Your task to perform on an android device: make emails show in primary in the gmail app Image 0: 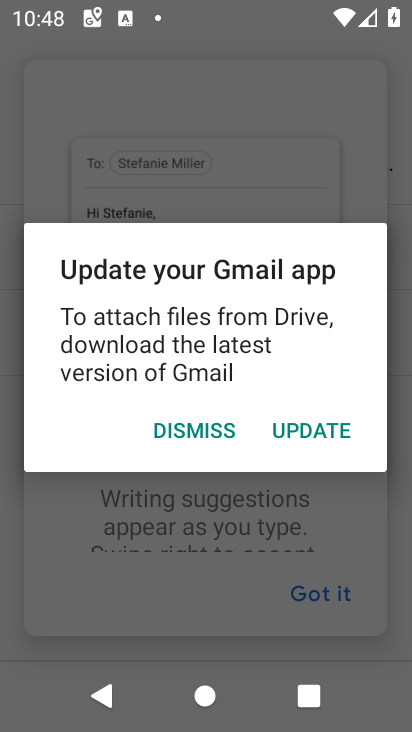
Step 0: press home button
Your task to perform on an android device: make emails show in primary in the gmail app Image 1: 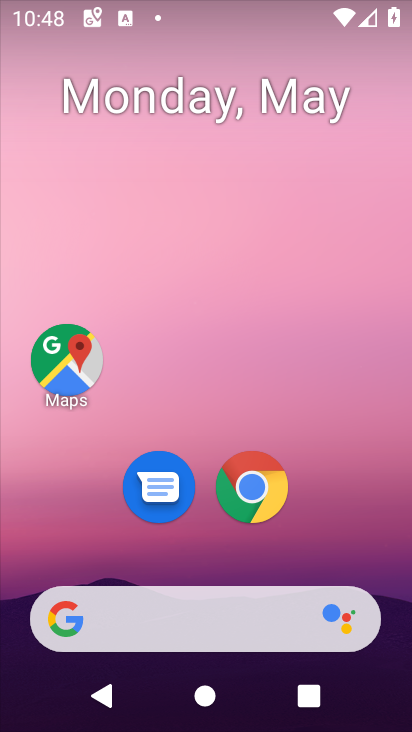
Step 1: drag from (317, 561) to (346, 180)
Your task to perform on an android device: make emails show in primary in the gmail app Image 2: 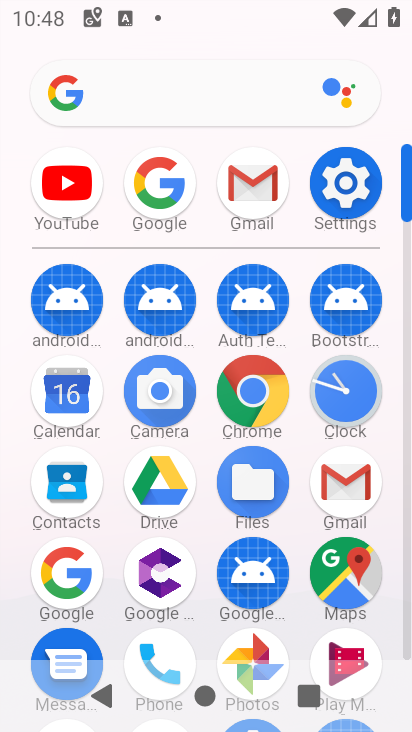
Step 2: click (262, 197)
Your task to perform on an android device: make emails show in primary in the gmail app Image 3: 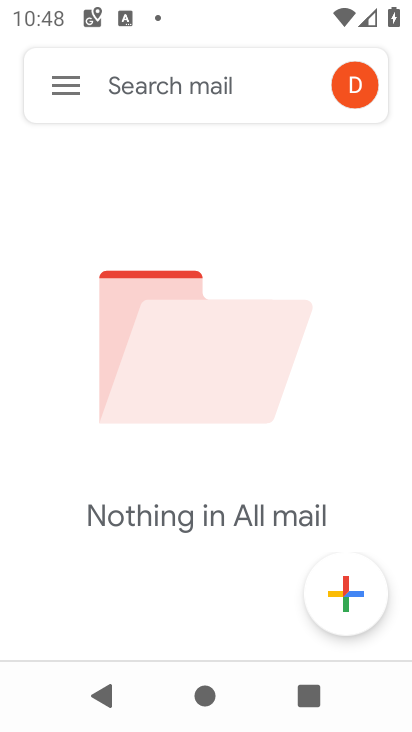
Step 3: click (63, 92)
Your task to perform on an android device: make emails show in primary in the gmail app Image 4: 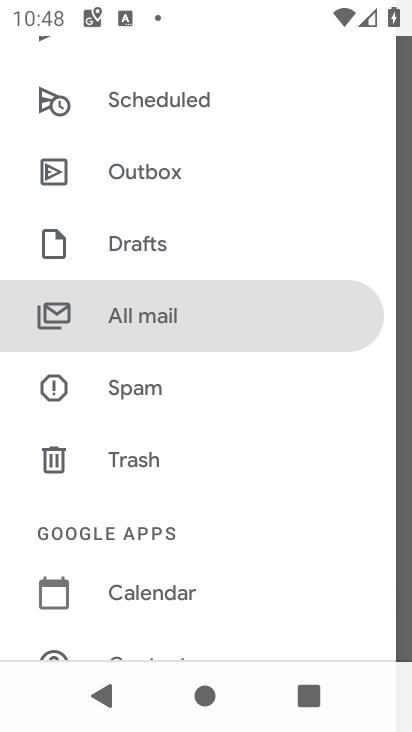
Step 4: drag from (251, 609) to (257, 298)
Your task to perform on an android device: make emails show in primary in the gmail app Image 5: 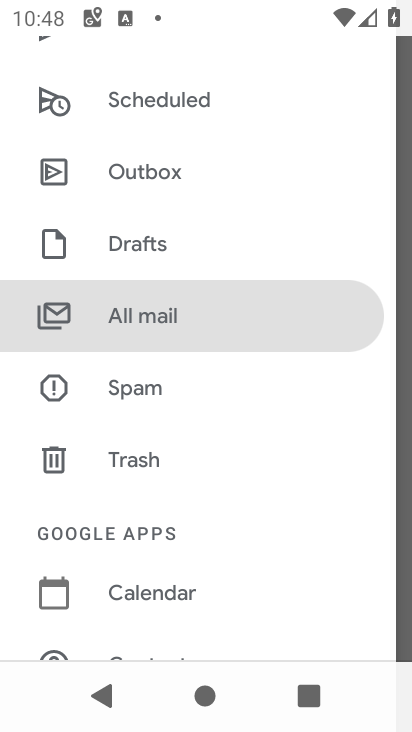
Step 5: drag from (266, 528) to (223, 181)
Your task to perform on an android device: make emails show in primary in the gmail app Image 6: 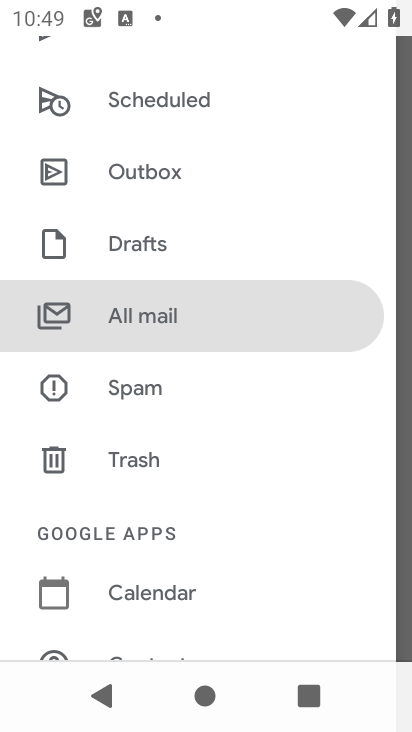
Step 6: drag from (194, 570) to (173, 188)
Your task to perform on an android device: make emails show in primary in the gmail app Image 7: 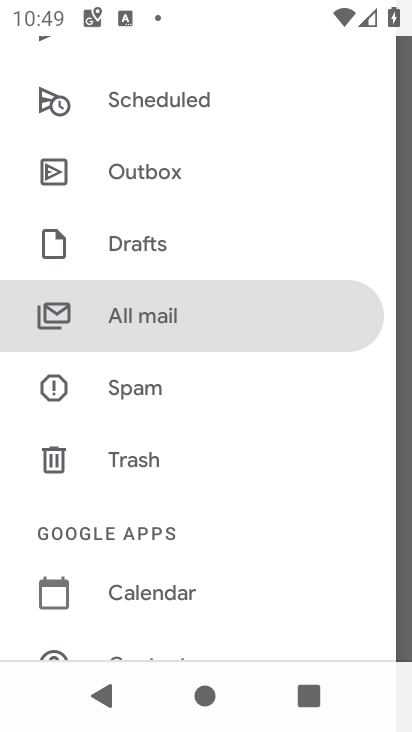
Step 7: drag from (114, 533) to (199, 162)
Your task to perform on an android device: make emails show in primary in the gmail app Image 8: 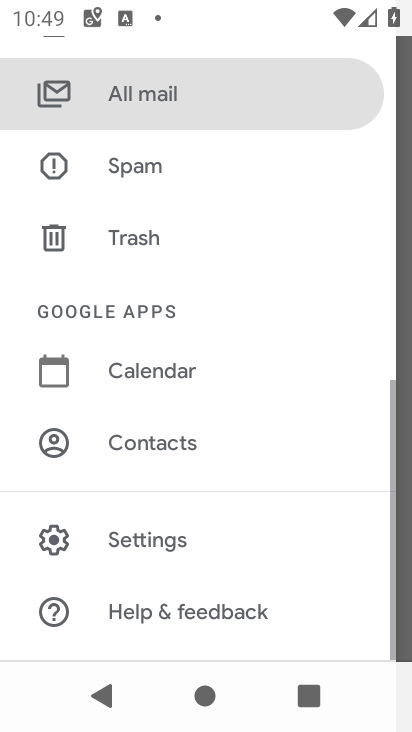
Step 8: click (187, 529)
Your task to perform on an android device: make emails show in primary in the gmail app Image 9: 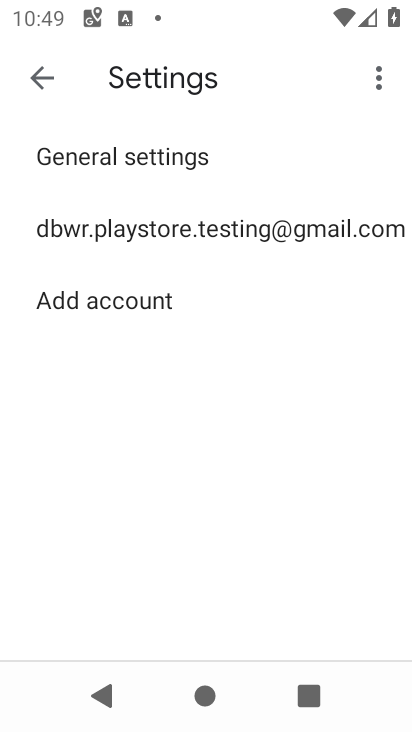
Step 9: click (196, 227)
Your task to perform on an android device: make emails show in primary in the gmail app Image 10: 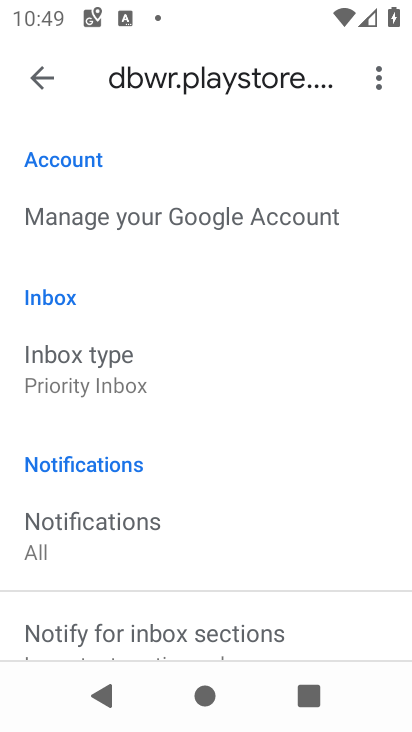
Step 10: drag from (188, 456) to (212, 141)
Your task to perform on an android device: make emails show in primary in the gmail app Image 11: 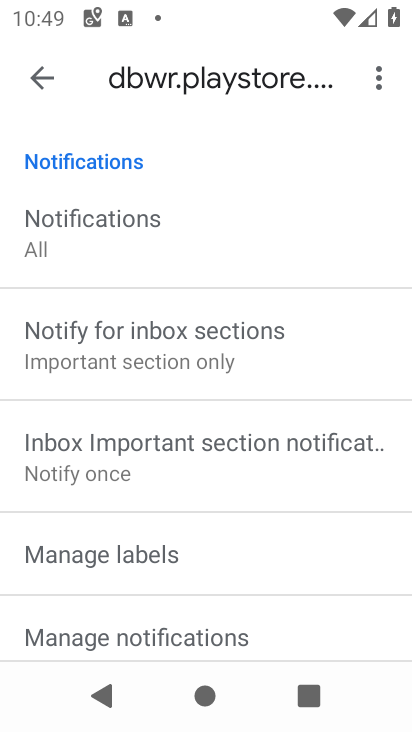
Step 11: drag from (194, 208) to (184, 430)
Your task to perform on an android device: make emails show in primary in the gmail app Image 12: 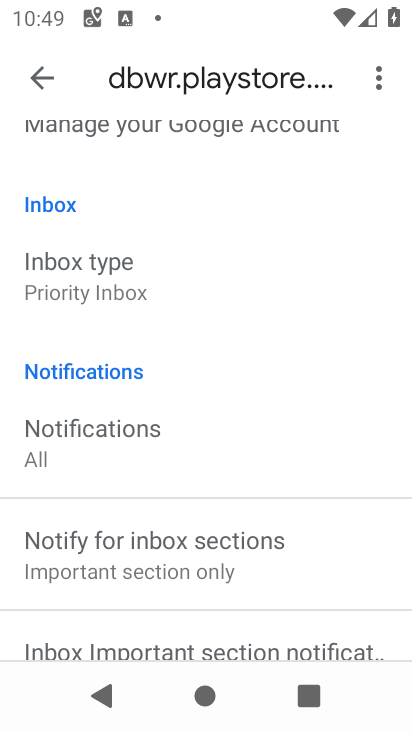
Step 12: click (150, 267)
Your task to perform on an android device: make emails show in primary in the gmail app Image 13: 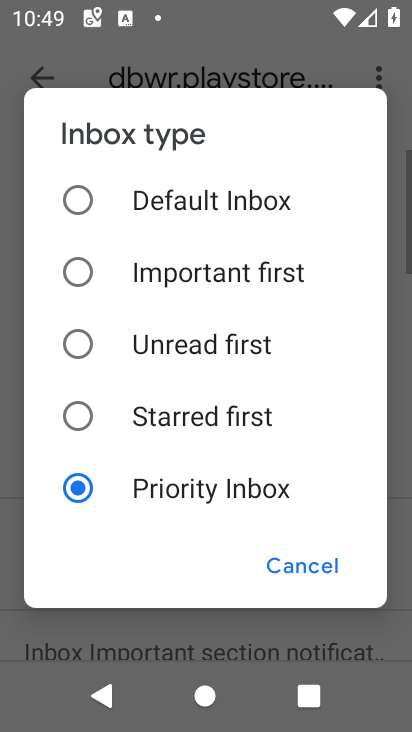
Step 13: click (138, 207)
Your task to perform on an android device: make emails show in primary in the gmail app Image 14: 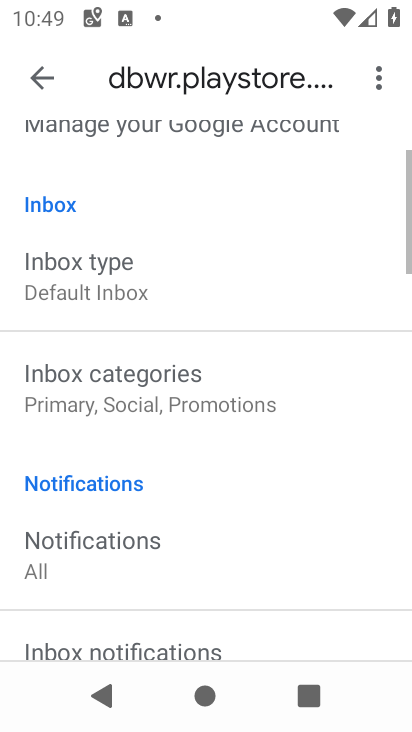
Step 14: click (150, 412)
Your task to perform on an android device: make emails show in primary in the gmail app Image 15: 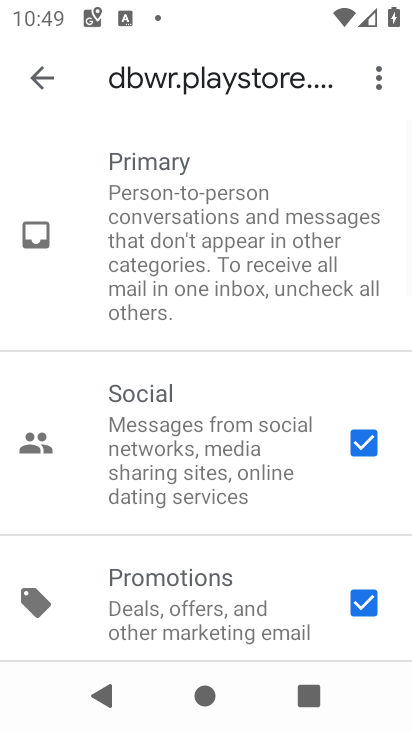
Step 15: click (352, 433)
Your task to perform on an android device: make emails show in primary in the gmail app Image 16: 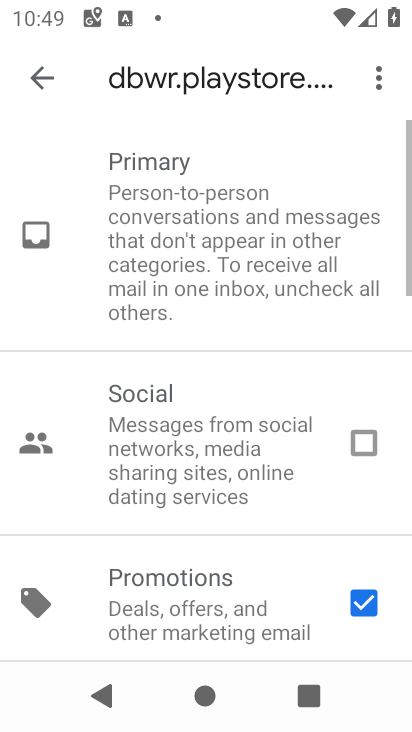
Step 16: click (366, 604)
Your task to perform on an android device: make emails show in primary in the gmail app Image 17: 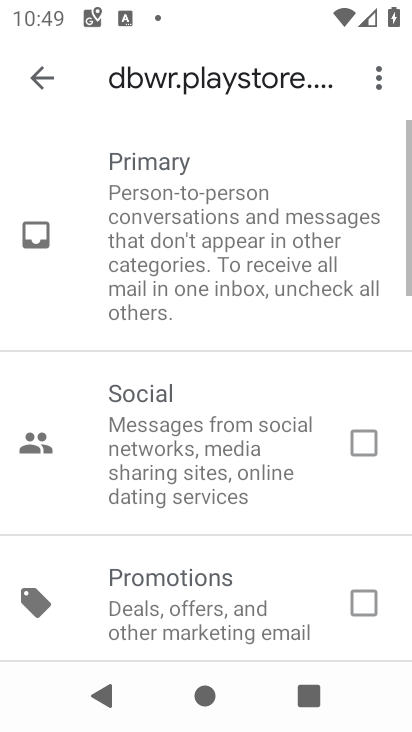
Step 17: task complete